Your task to perform on an android device: Go to wifi settings Image 0: 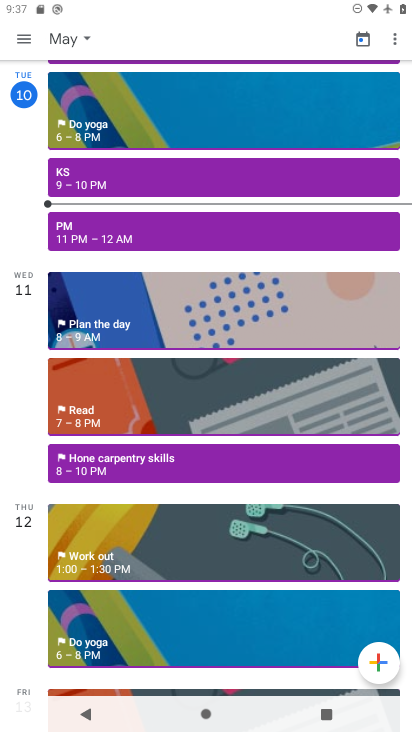
Step 0: press home button
Your task to perform on an android device: Go to wifi settings Image 1: 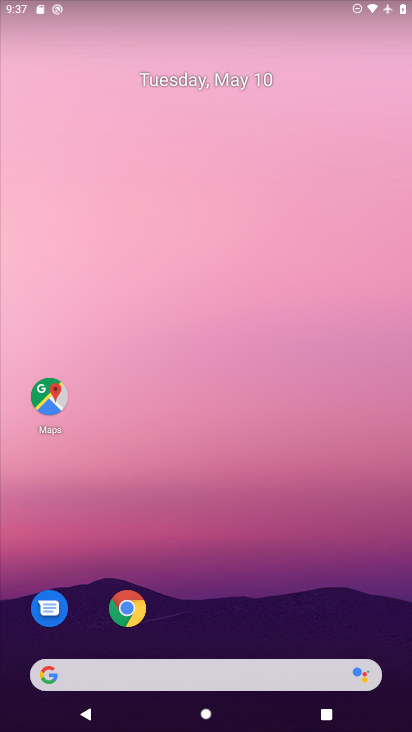
Step 1: drag from (223, 620) to (259, 240)
Your task to perform on an android device: Go to wifi settings Image 2: 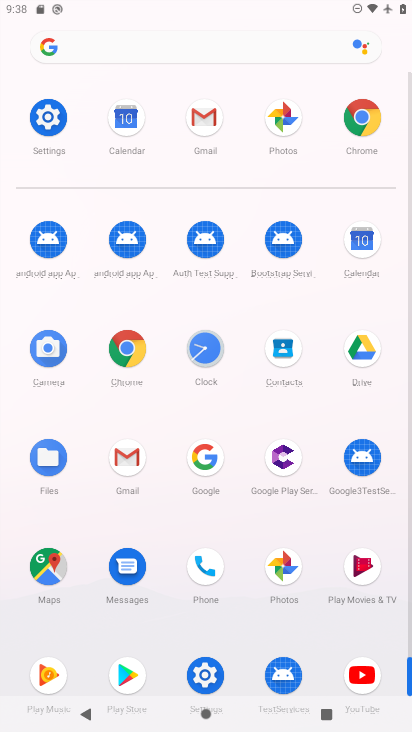
Step 2: click (50, 111)
Your task to perform on an android device: Go to wifi settings Image 3: 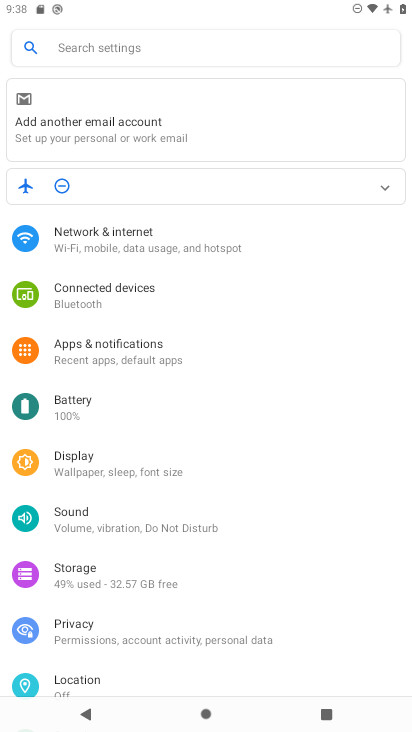
Step 3: click (143, 240)
Your task to perform on an android device: Go to wifi settings Image 4: 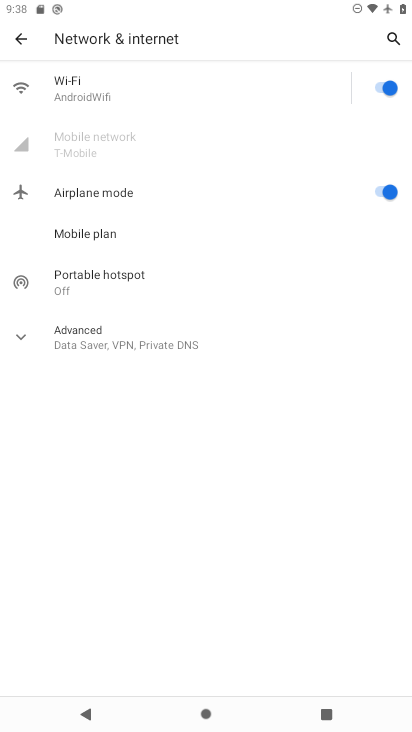
Step 4: click (121, 94)
Your task to perform on an android device: Go to wifi settings Image 5: 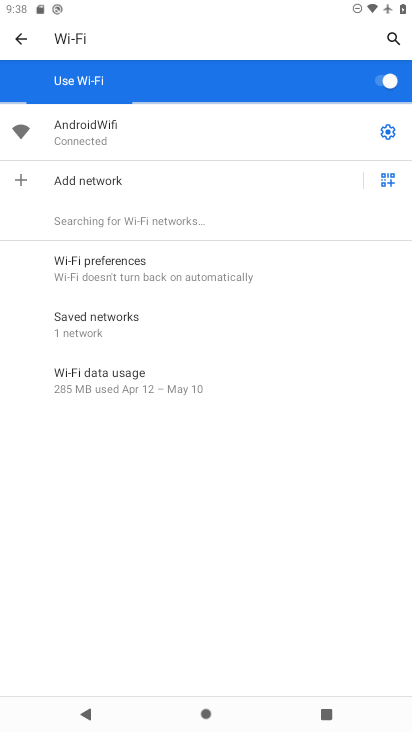
Step 5: task complete